Your task to perform on an android device: Open Chrome and go to settings Image 0: 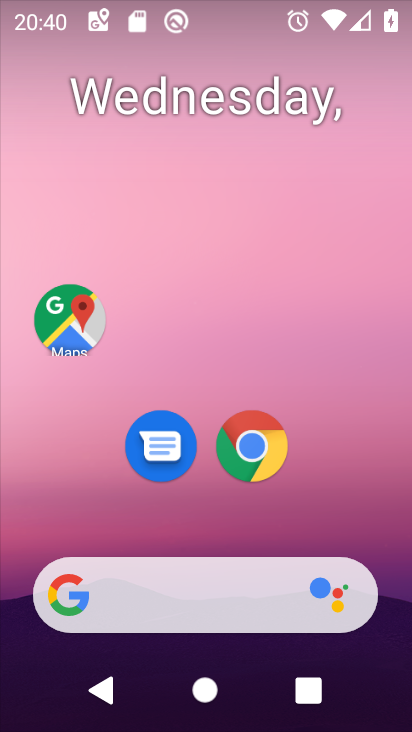
Step 0: click (249, 463)
Your task to perform on an android device: Open Chrome and go to settings Image 1: 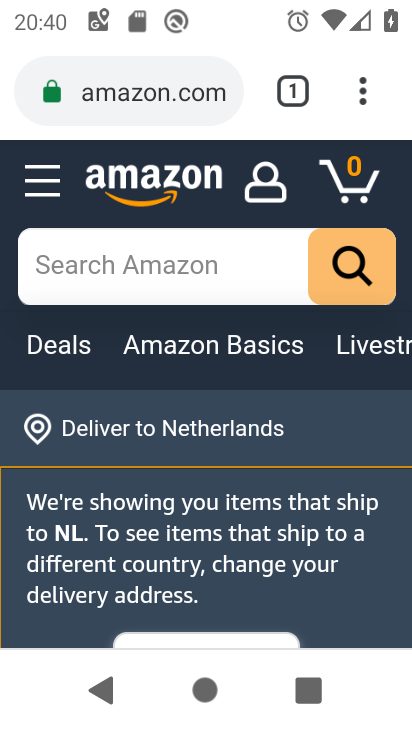
Step 1: task complete